Your task to perform on an android device: change the clock display to analog Image 0: 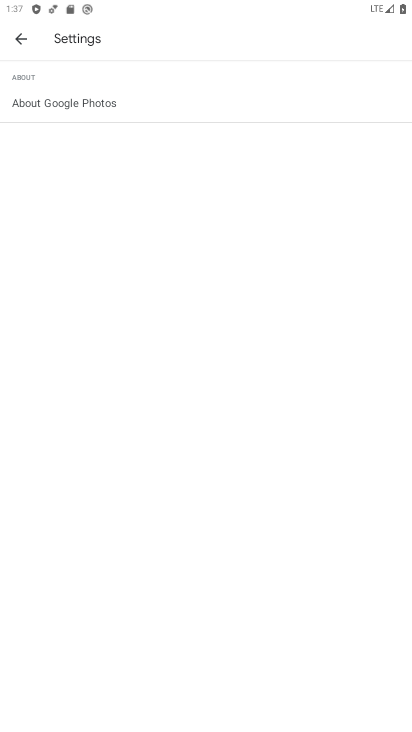
Step 0: press home button
Your task to perform on an android device: change the clock display to analog Image 1: 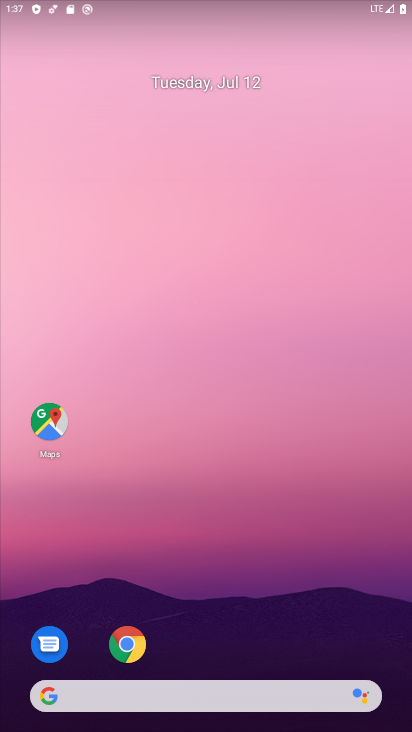
Step 1: drag from (226, 673) to (196, 107)
Your task to perform on an android device: change the clock display to analog Image 2: 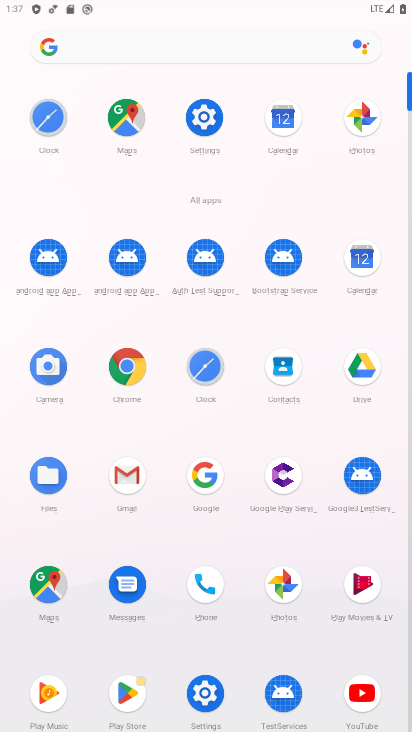
Step 2: click (37, 122)
Your task to perform on an android device: change the clock display to analog Image 3: 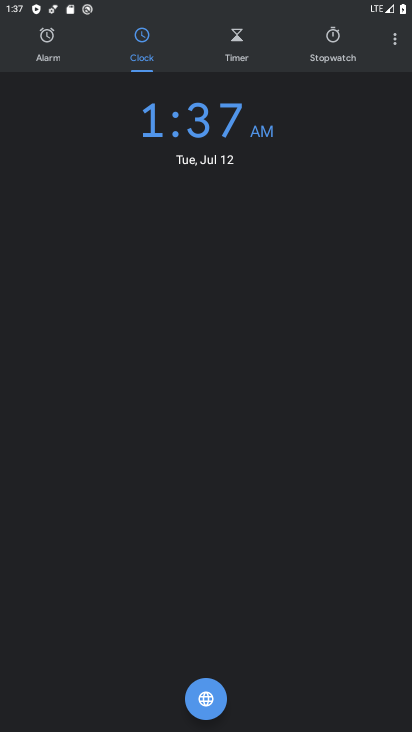
Step 3: drag from (396, 42) to (349, 74)
Your task to perform on an android device: change the clock display to analog Image 4: 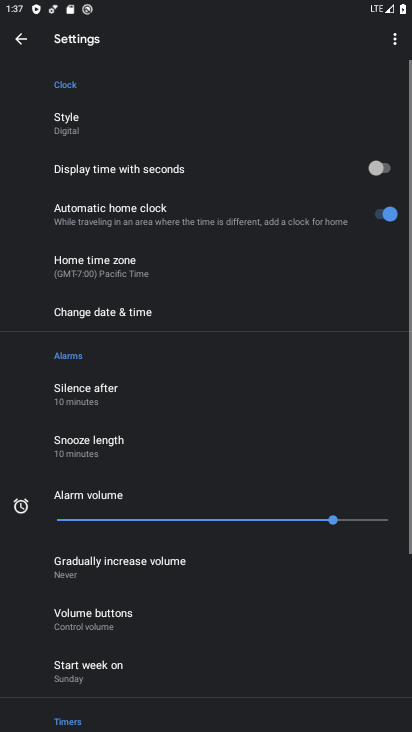
Step 4: click (61, 116)
Your task to perform on an android device: change the clock display to analog Image 5: 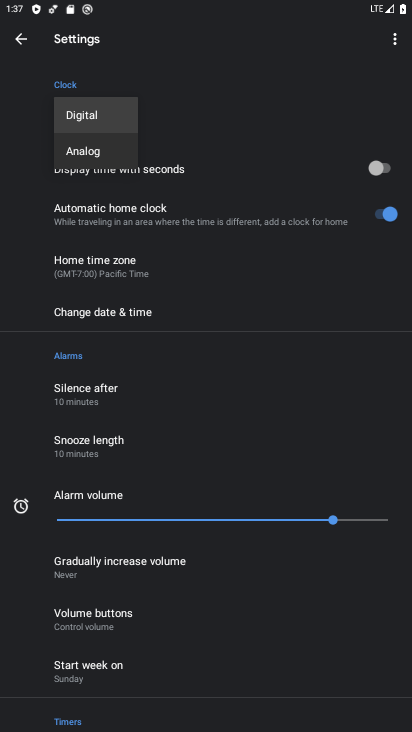
Step 5: click (94, 138)
Your task to perform on an android device: change the clock display to analog Image 6: 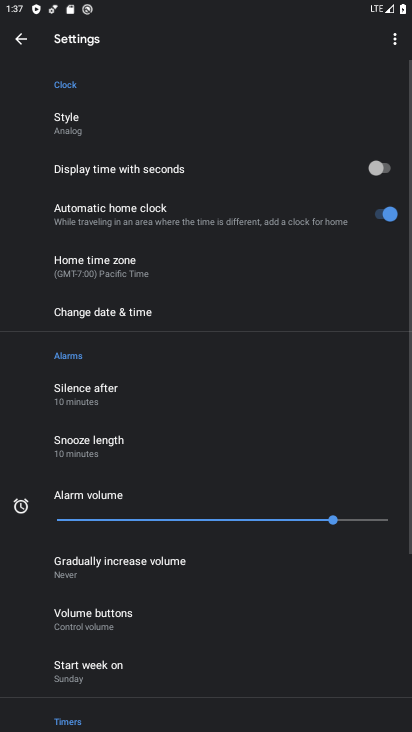
Step 6: task complete